Your task to perform on an android device: Open privacy settings Image 0: 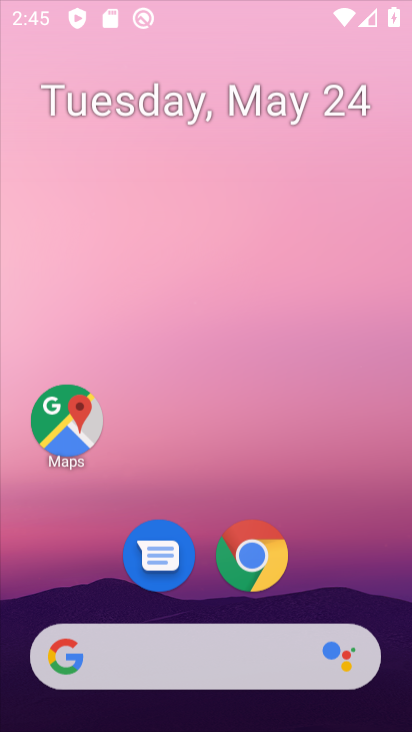
Step 0: click (163, 15)
Your task to perform on an android device: Open privacy settings Image 1: 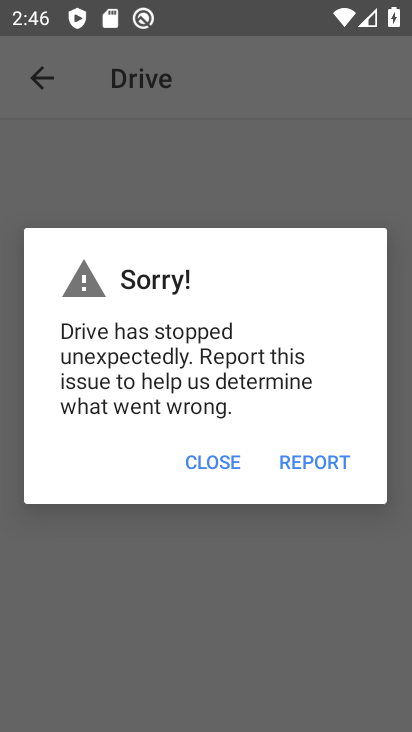
Step 1: press home button
Your task to perform on an android device: Open privacy settings Image 2: 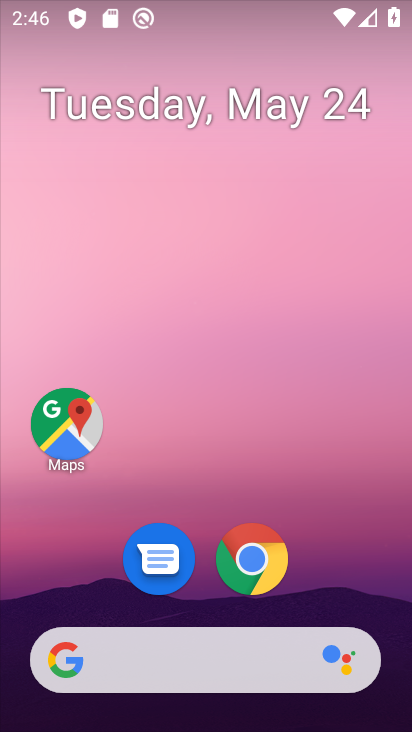
Step 2: drag from (207, 586) to (212, 142)
Your task to perform on an android device: Open privacy settings Image 3: 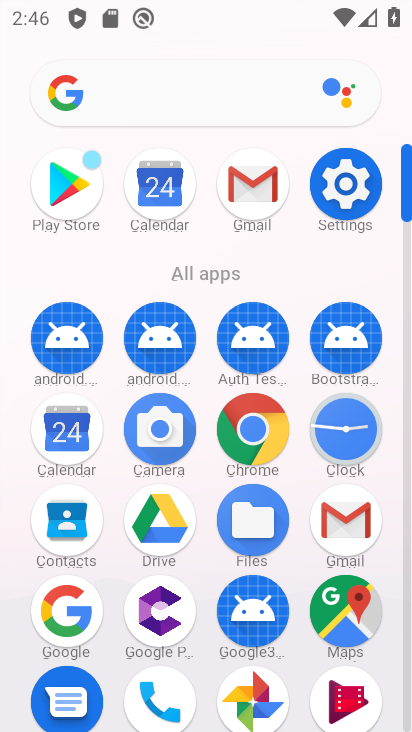
Step 3: click (364, 185)
Your task to perform on an android device: Open privacy settings Image 4: 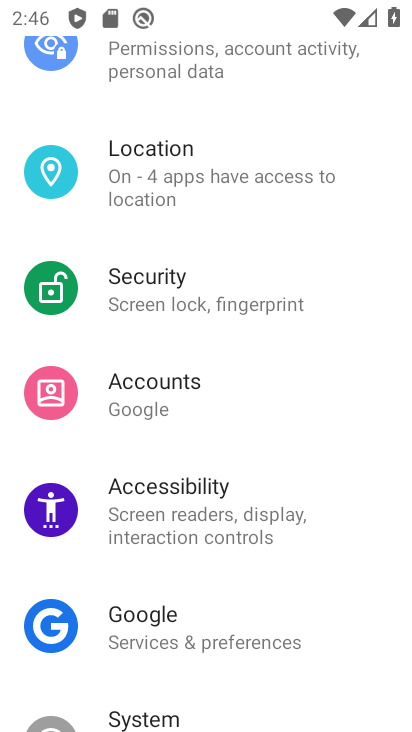
Step 4: click (163, 63)
Your task to perform on an android device: Open privacy settings Image 5: 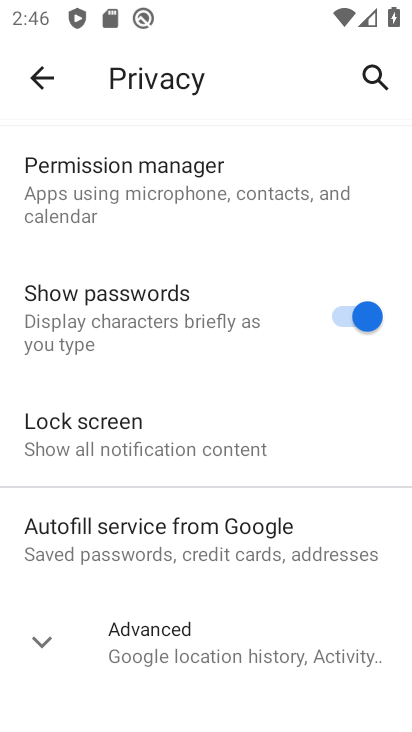
Step 5: task complete